Your task to perform on an android device: turn on the 12-hour format for clock Image 0: 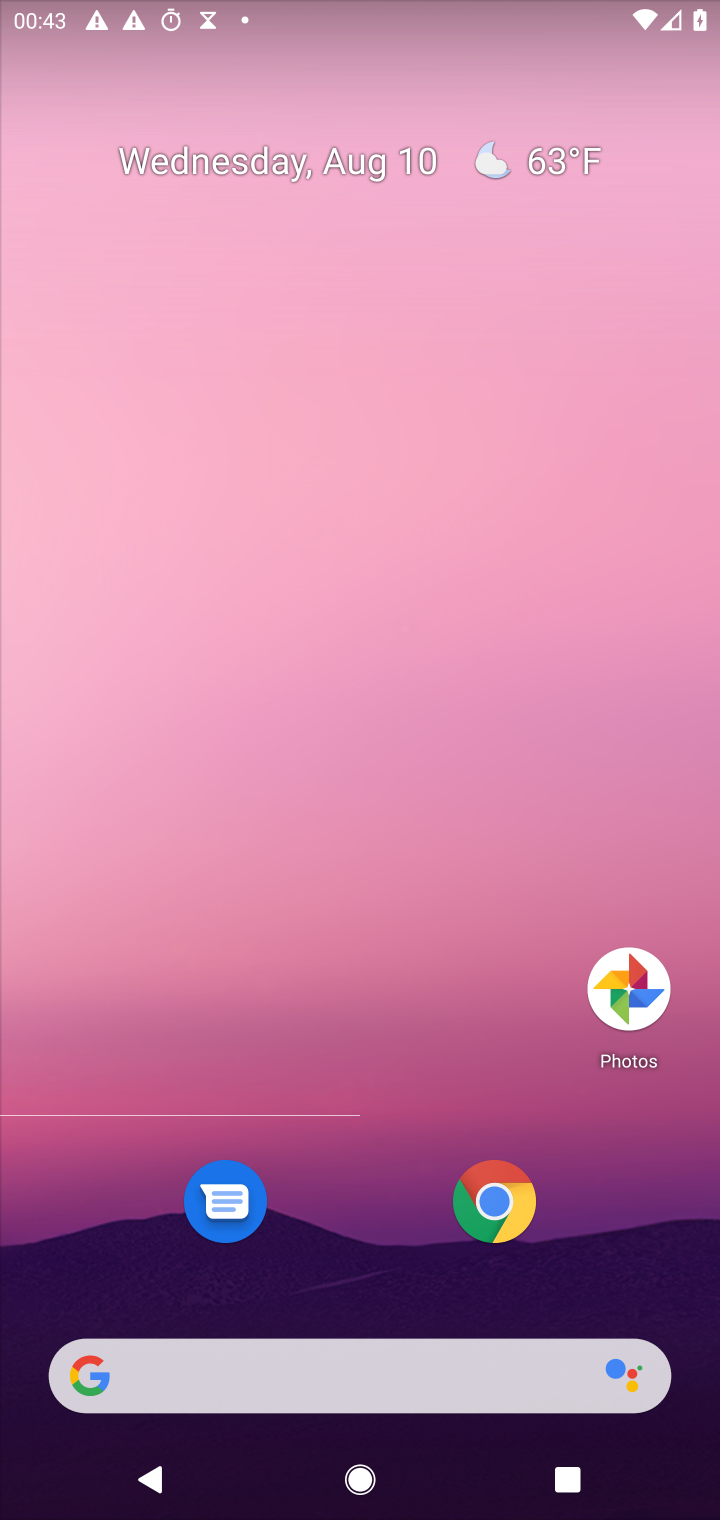
Step 0: press home button
Your task to perform on an android device: turn on the 12-hour format for clock Image 1: 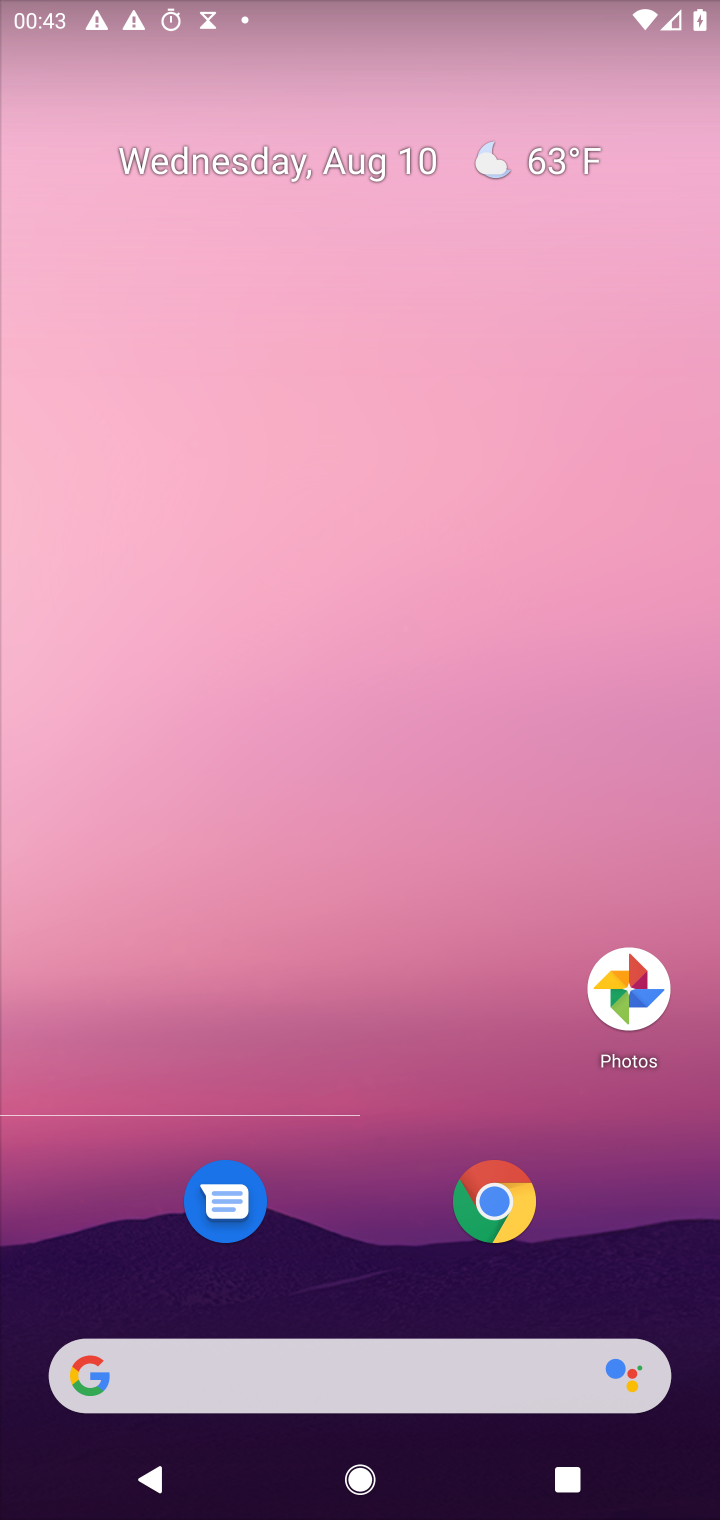
Step 1: drag from (323, 1158) to (302, 252)
Your task to perform on an android device: turn on the 12-hour format for clock Image 2: 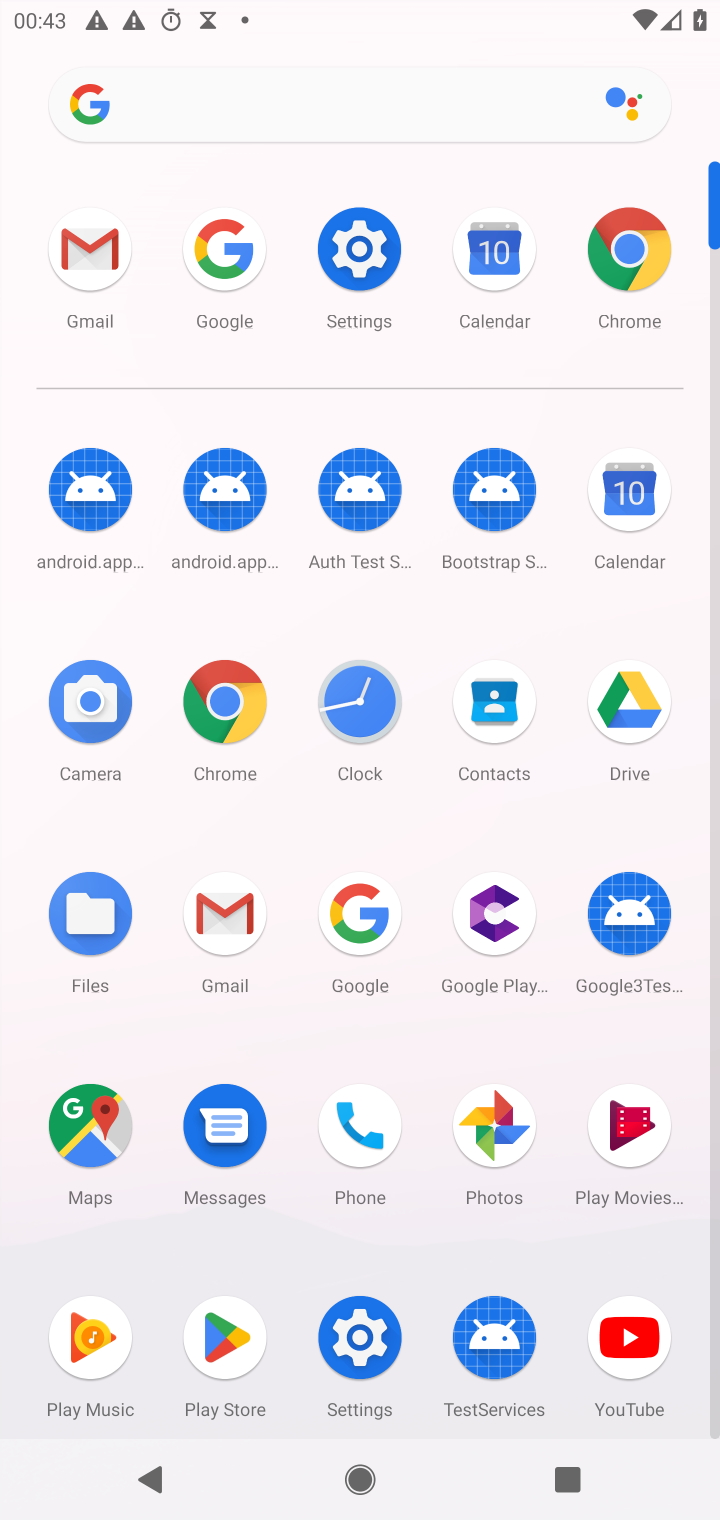
Step 2: click (342, 696)
Your task to perform on an android device: turn on the 12-hour format for clock Image 3: 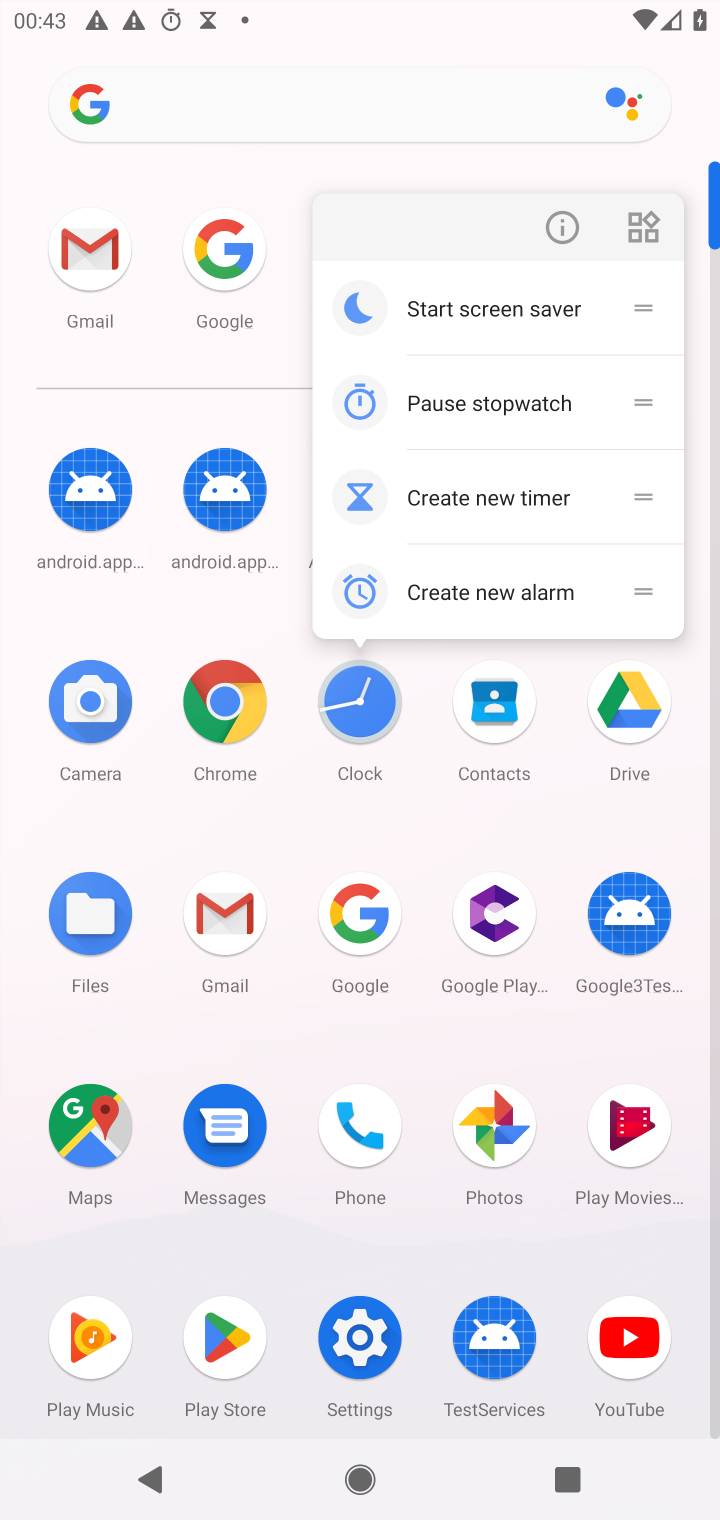
Step 3: click (356, 708)
Your task to perform on an android device: turn on the 12-hour format for clock Image 4: 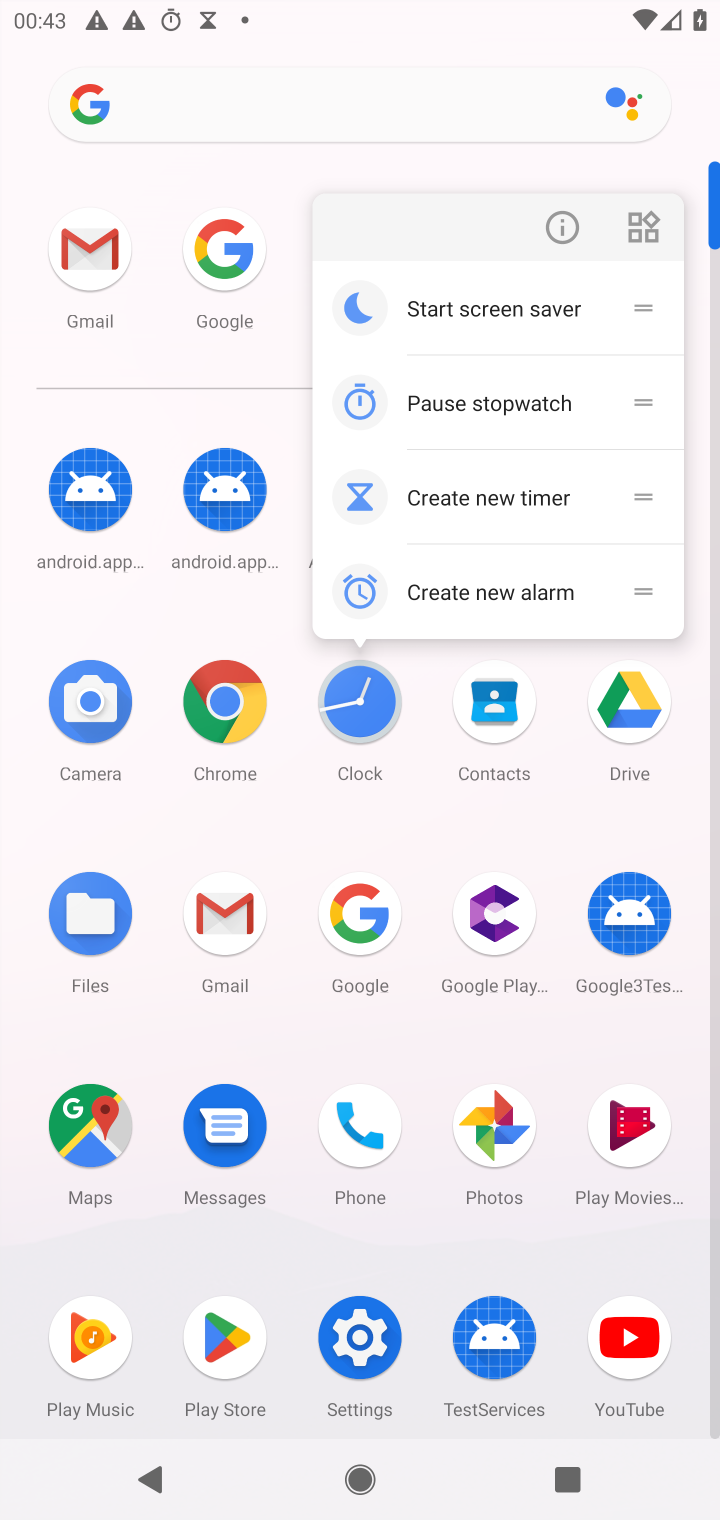
Step 4: click (356, 708)
Your task to perform on an android device: turn on the 12-hour format for clock Image 5: 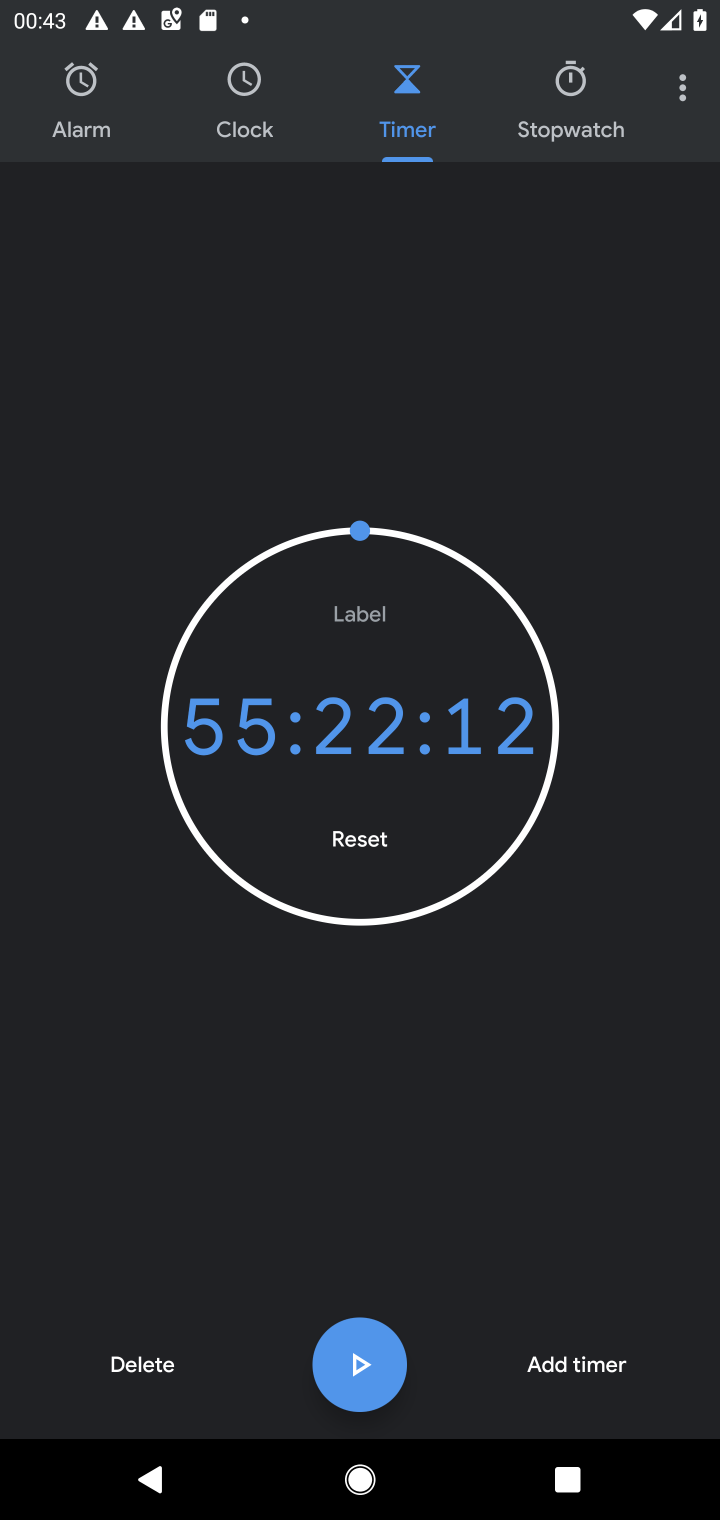
Step 5: click (683, 81)
Your task to perform on an android device: turn on the 12-hour format for clock Image 6: 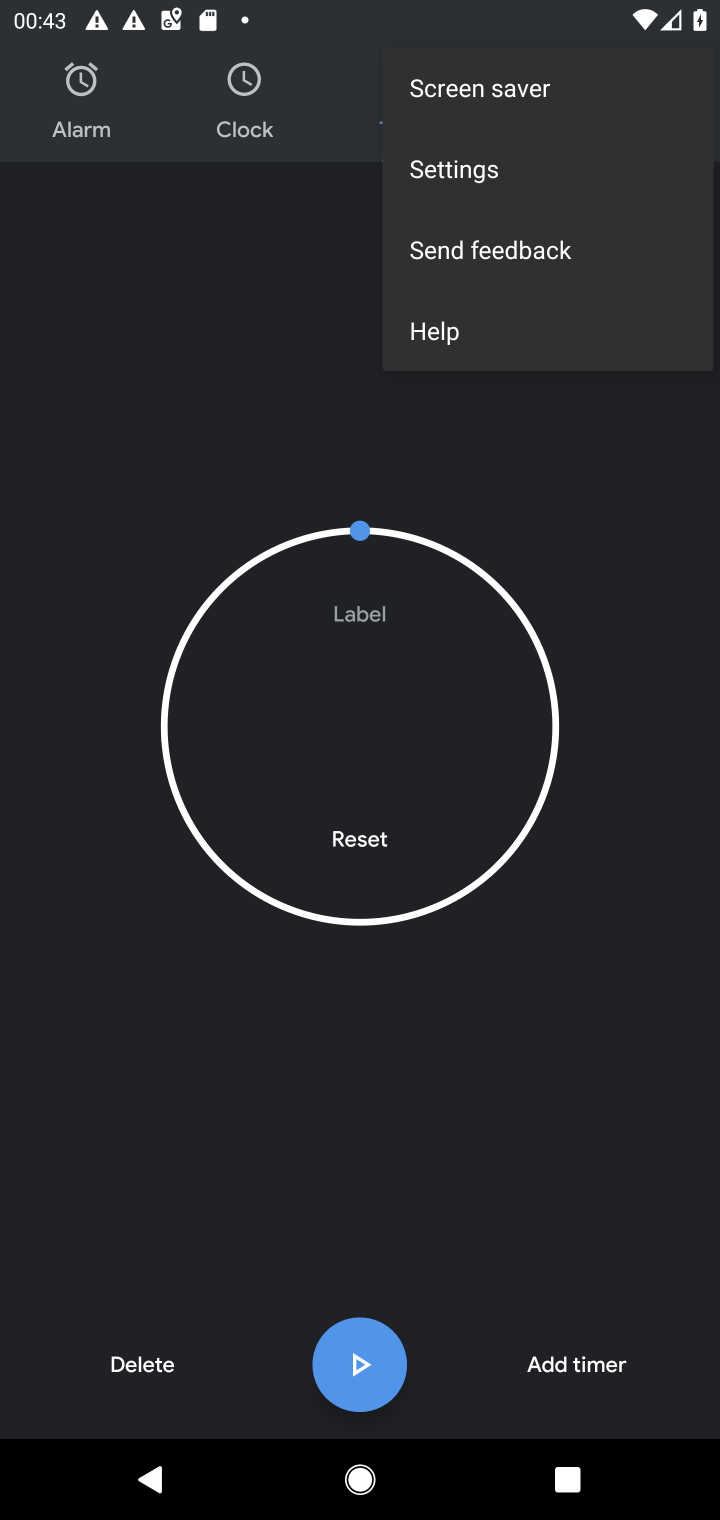
Step 6: click (424, 160)
Your task to perform on an android device: turn on the 12-hour format for clock Image 7: 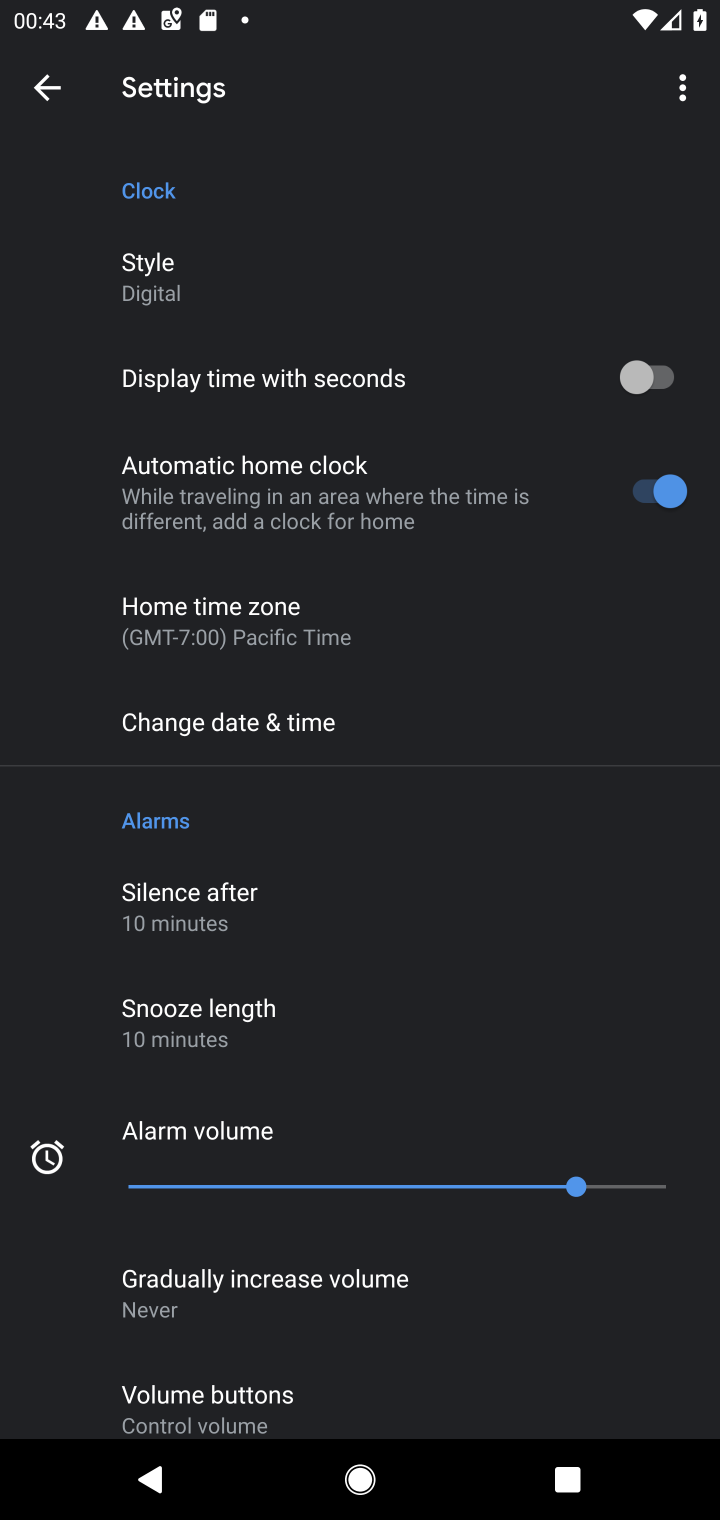
Step 7: click (293, 751)
Your task to perform on an android device: turn on the 12-hour format for clock Image 8: 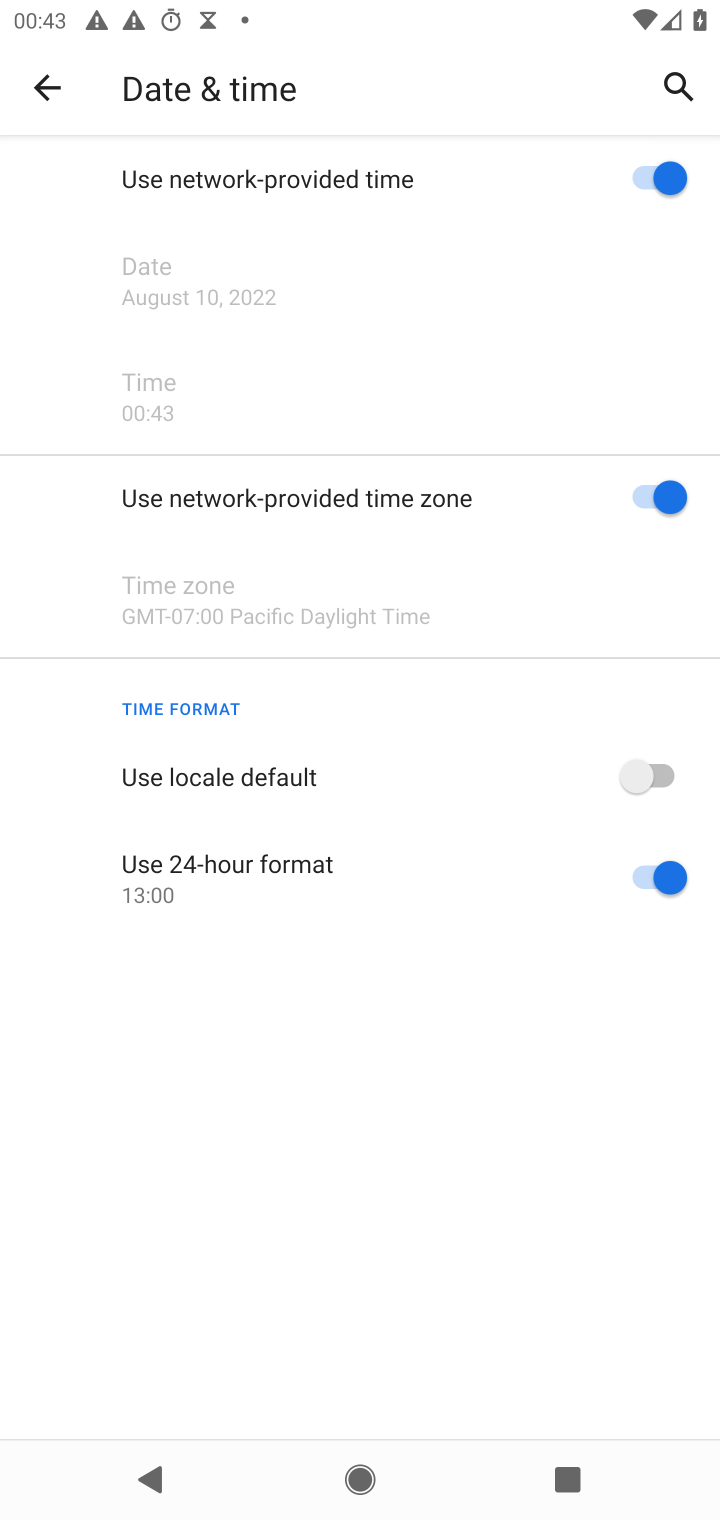
Step 8: click (661, 875)
Your task to perform on an android device: turn on the 12-hour format for clock Image 9: 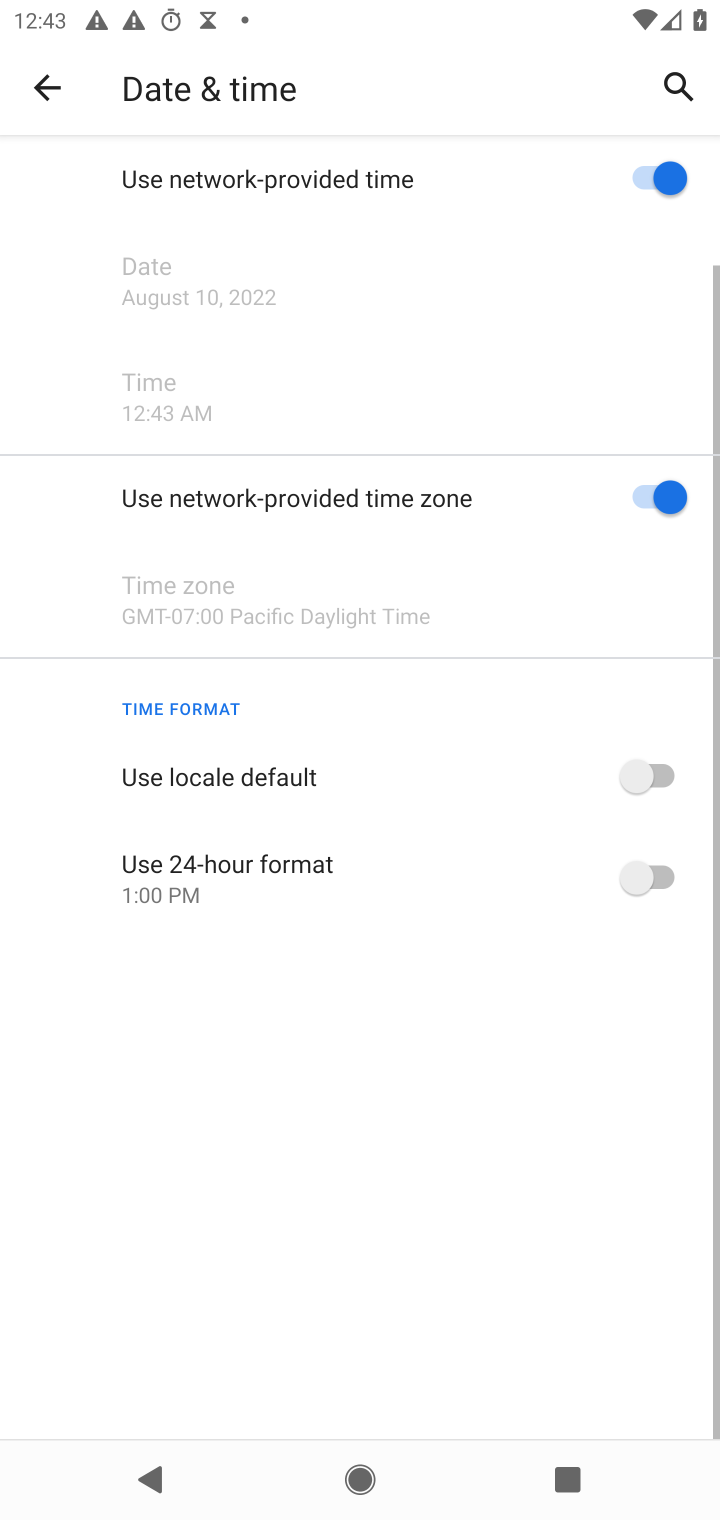
Step 9: click (661, 776)
Your task to perform on an android device: turn on the 12-hour format for clock Image 10: 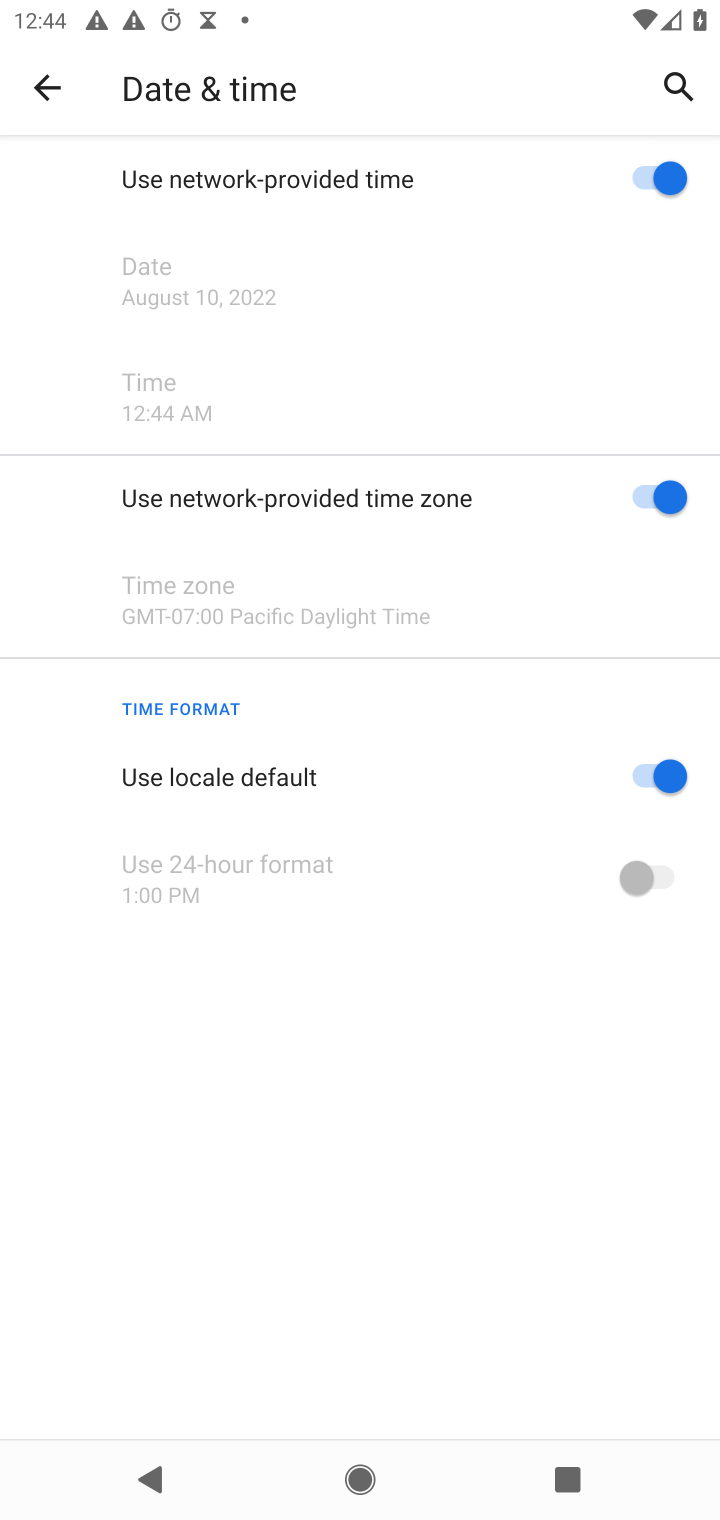
Step 10: task complete